Your task to perform on an android device: turn pop-ups off in chrome Image 0: 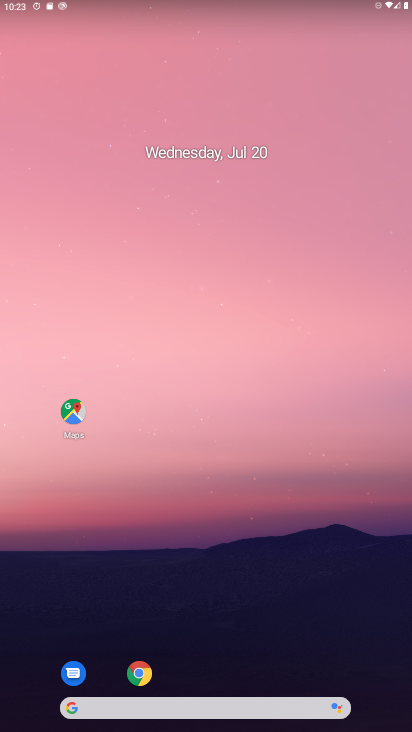
Step 0: drag from (378, 665) to (146, 63)
Your task to perform on an android device: turn pop-ups off in chrome Image 1: 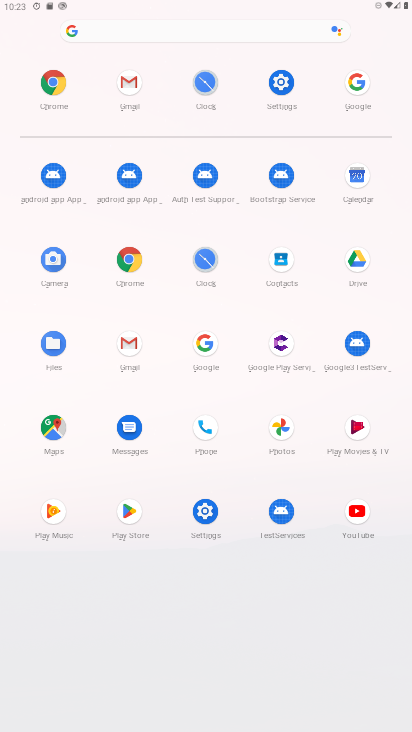
Step 1: click (127, 251)
Your task to perform on an android device: turn pop-ups off in chrome Image 2: 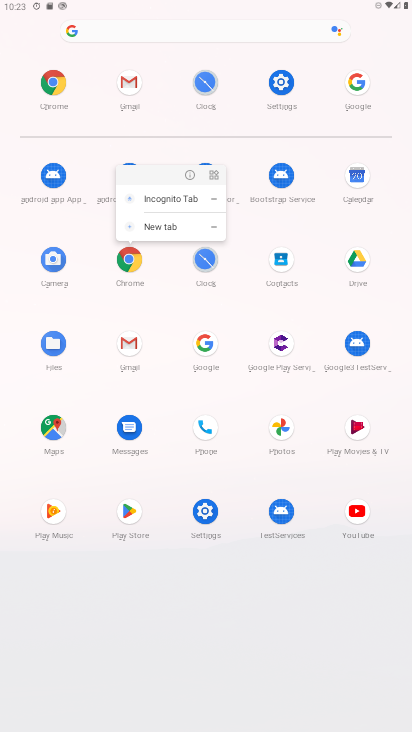
Step 2: click (128, 252)
Your task to perform on an android device: turn pop-ups off in chrome Image 3: 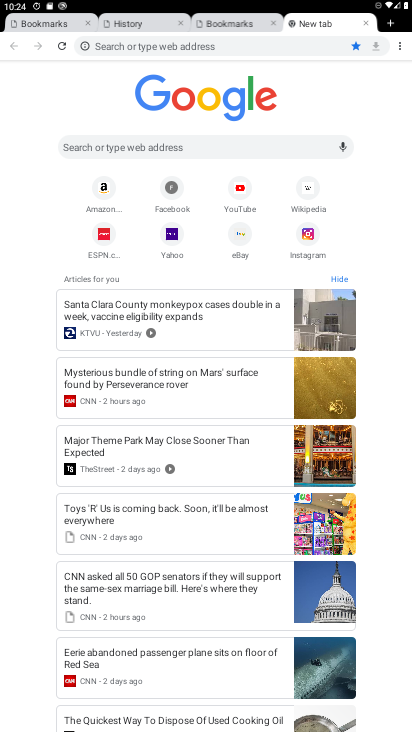
Step 3: click (399, 45)
Your task to perform on an android device: turn pop-ups off in chrome Image 4: 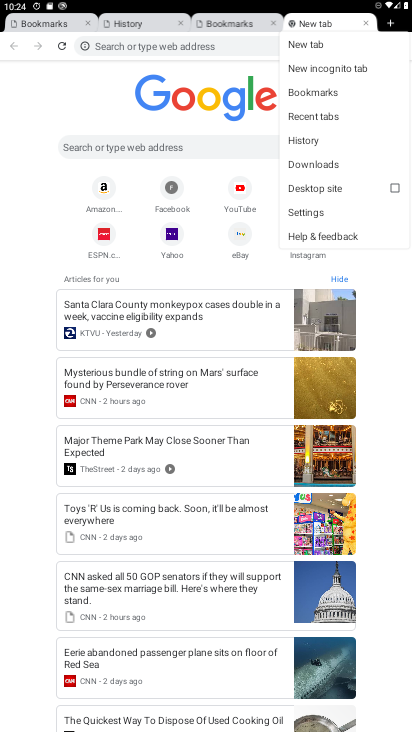
Step 4: click (311, 213)
Your task to perform on an android device: turn pop-ups off in chrome Image 5: 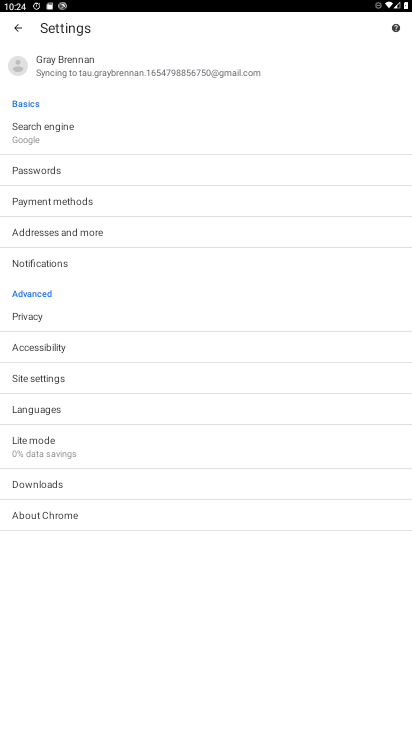
Step 5: click (68, 382)
Your task to perform on an android device: turn pop-ups off in chrome Image 6: 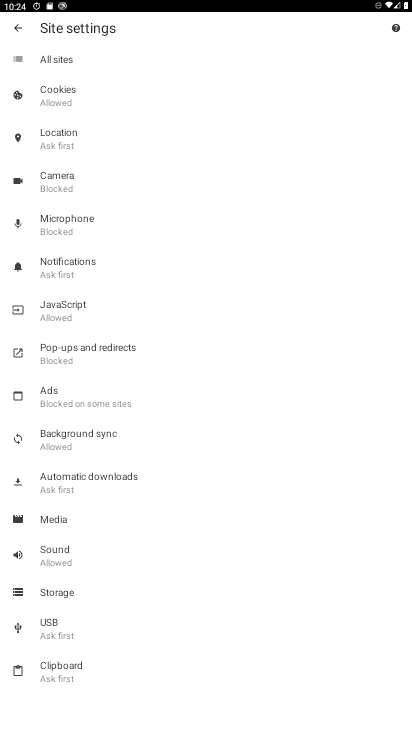
Step 6: click (143, 342)
Your task to perform on an android device: turn pop-ups off in chrome Image 7: 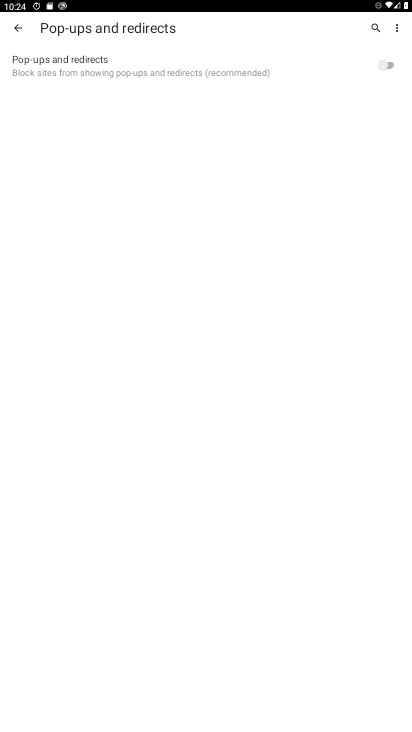
Step 7: task complete